Your task to perform on an android device: Go to Google Image 0: 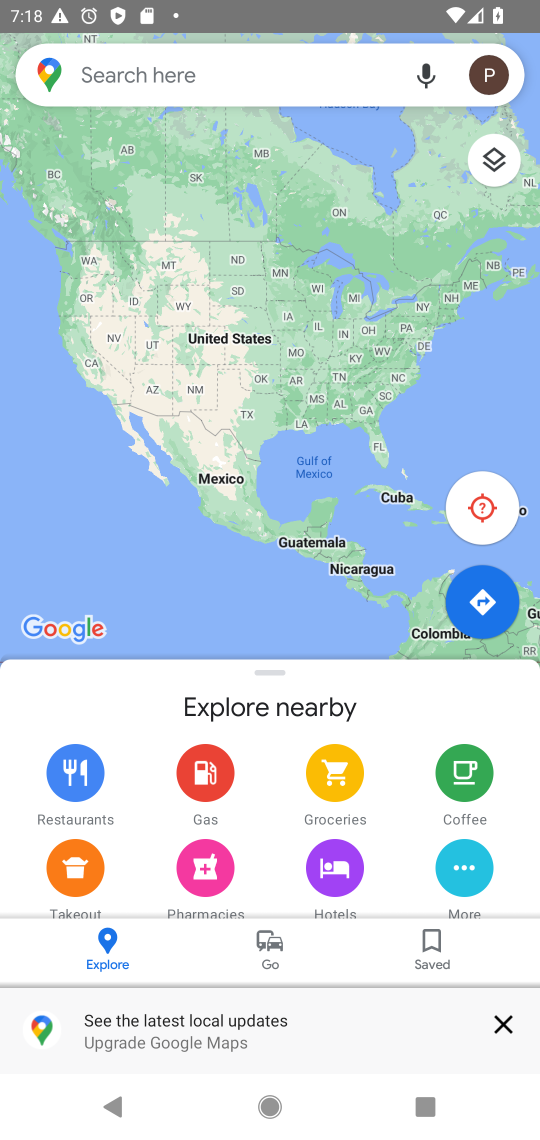
Step 0: press home button
Your task to perform on an android device: Go to Google Image 1: 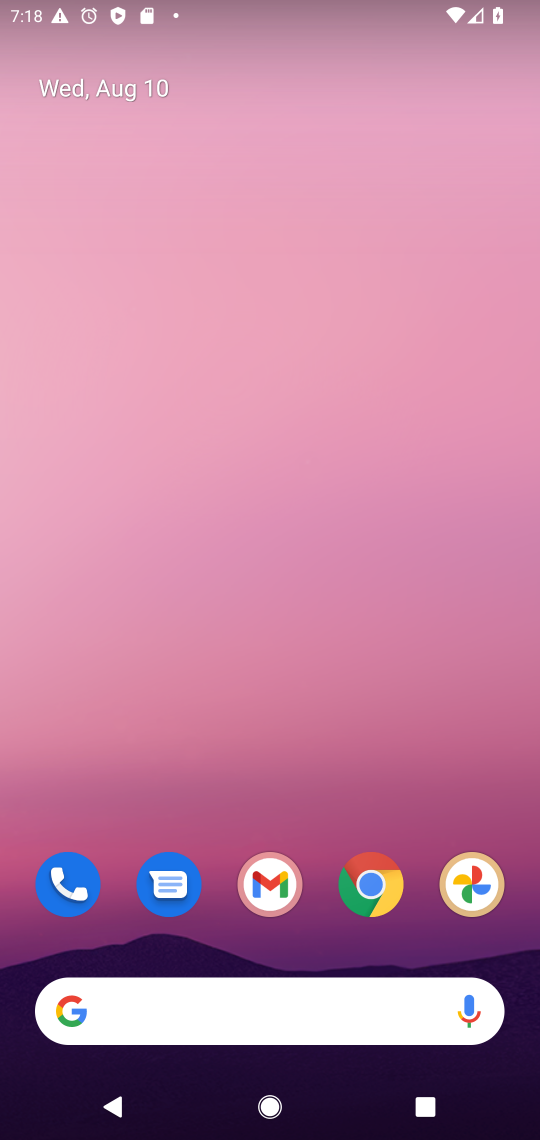
Step 1: click (174, 1018)
Your task to perform on an android device: Go to Google Image 2: 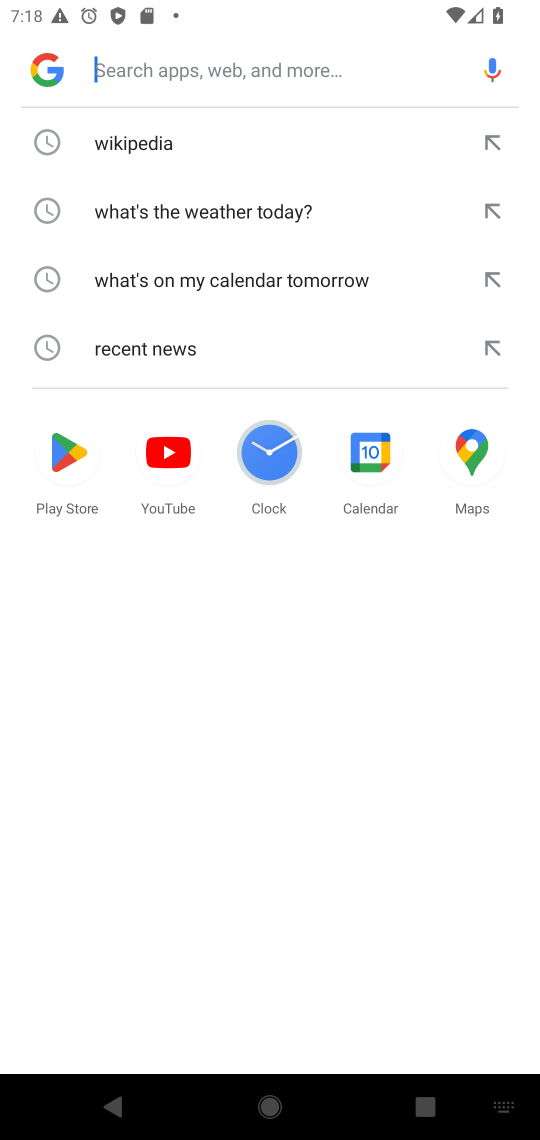
Step 2: task complete